Your task to perform on an android device: Open maps Image 0: 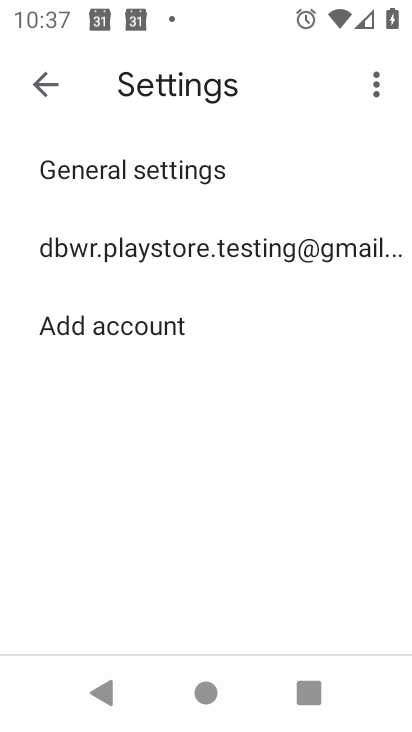
Step 0: press home button
Your task to perform on an android device: Open maps Image 1: 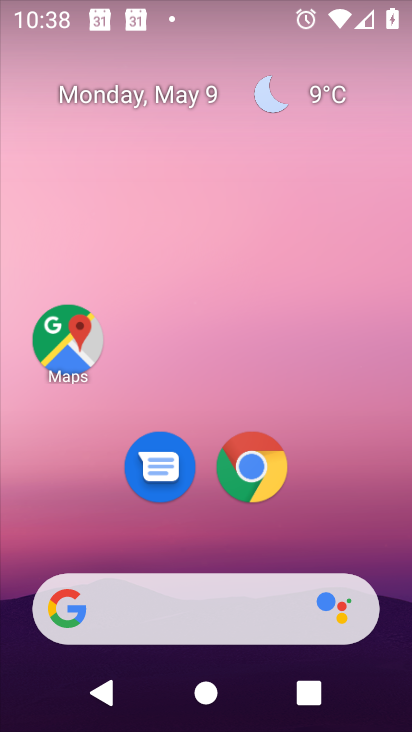
Step 1: click (52, 329)
Your task to perform on an android device: Open maps Image 2: 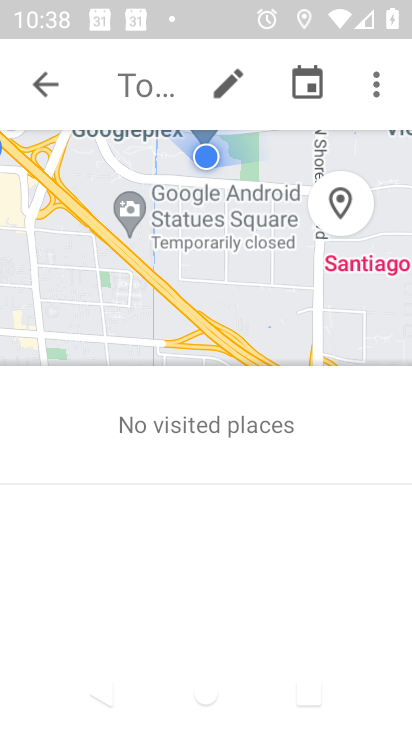
Step 2: click (40, 89)
Your task to perform on an android device: Open maps Image 3: 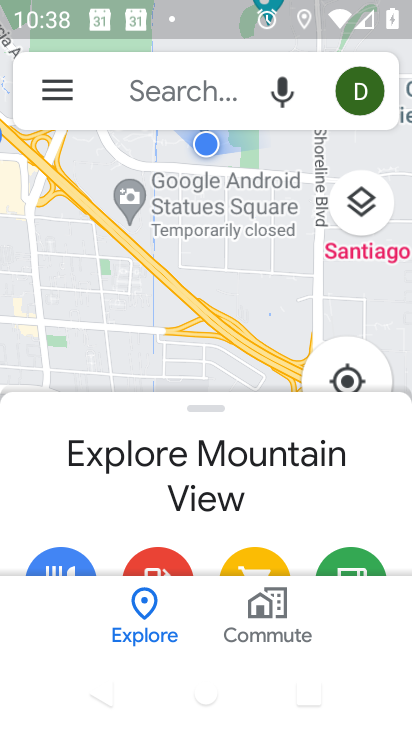
Step 3: task complete